Your task to perform on an android device: turn on sleep mode Image 0: 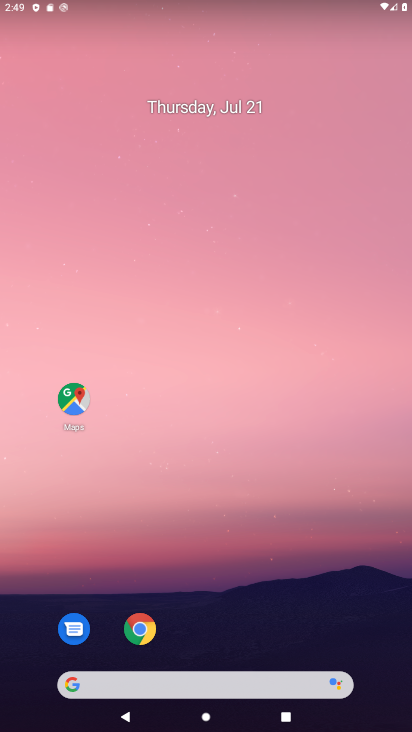
Step 0: drag from (252, 668) to (288, 4)
Your task to perform on an android device: turn on sleep mode Image 1: 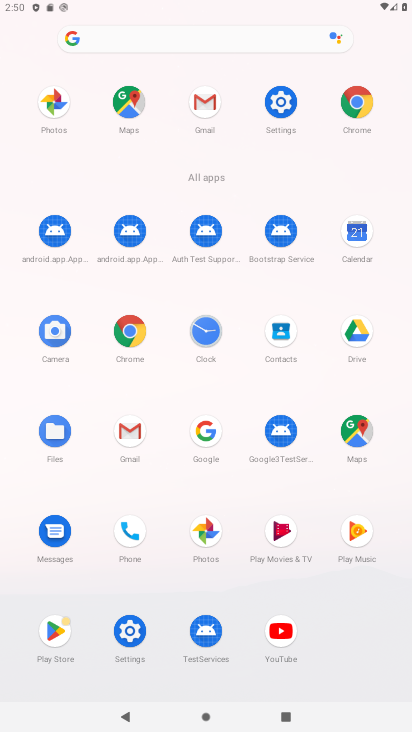
Step 1: click (118, 635)
Your task to perform on an android device: turn on sleep mode Image 2: 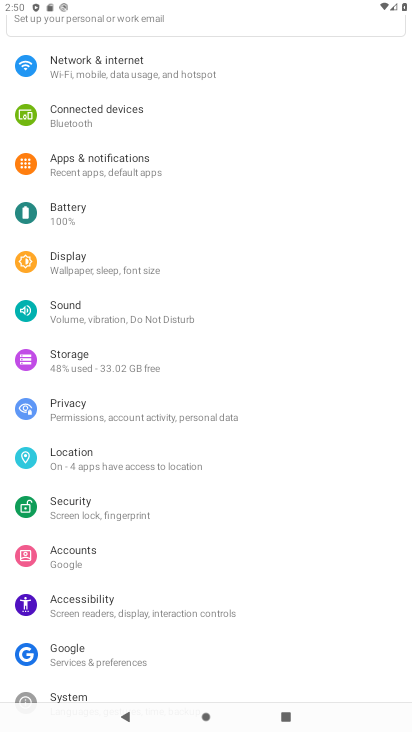
Step 2: click (59, 275)
Your task to perform on an android device: turn on sleep mode Image 3: 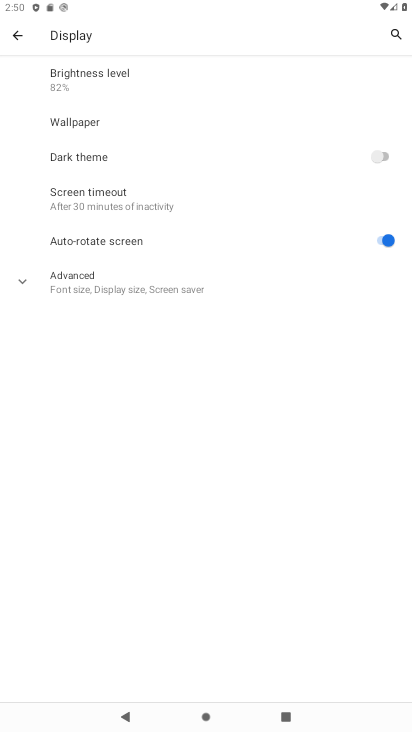
Step 3: task complete